Your task to perform on an android device: Open sound settings Image 0: 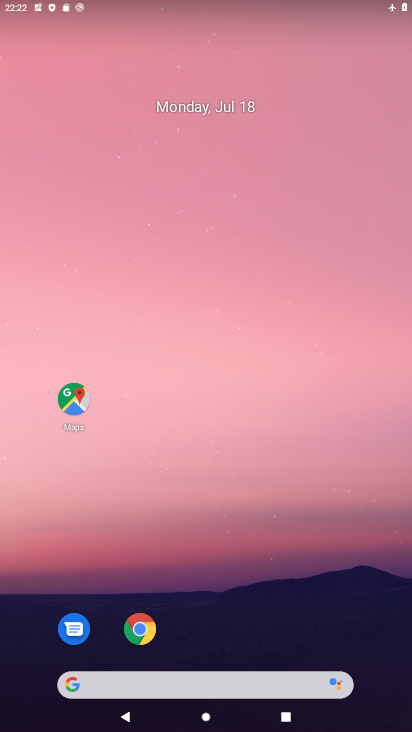
Step 0: drag from (287, 567) to (259, 77)
Your task to perform on an android device: Open sound settings Image 1: 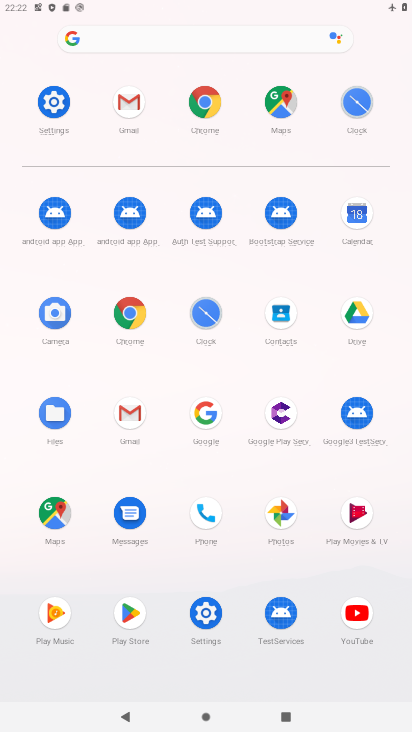
Step 1: click (48, 102)
Your task to perform on an android device: Open sound settings Image 2: 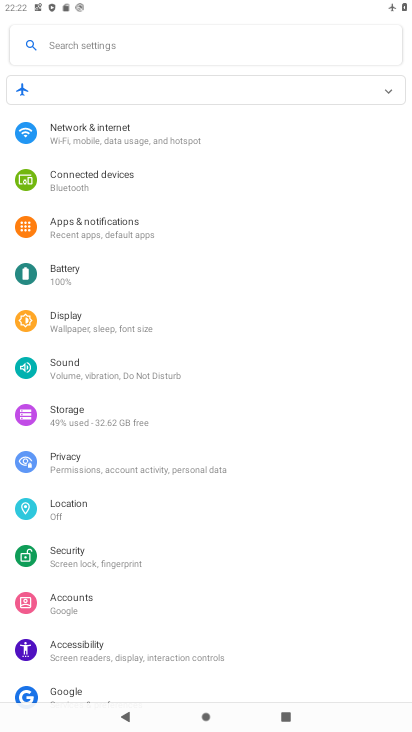
Step 2: click (68, 374)
Your task to perform on an android device: Open sound settings Image 3: 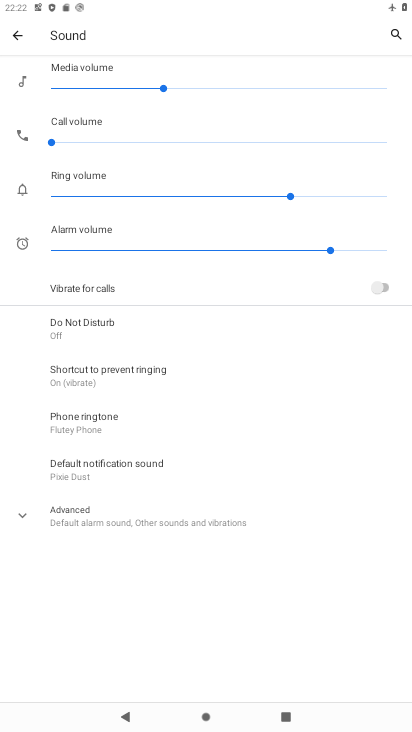
Step 3: task complete